Your task to perform on an android device: toggle show notifications on the lock screen Image 0: 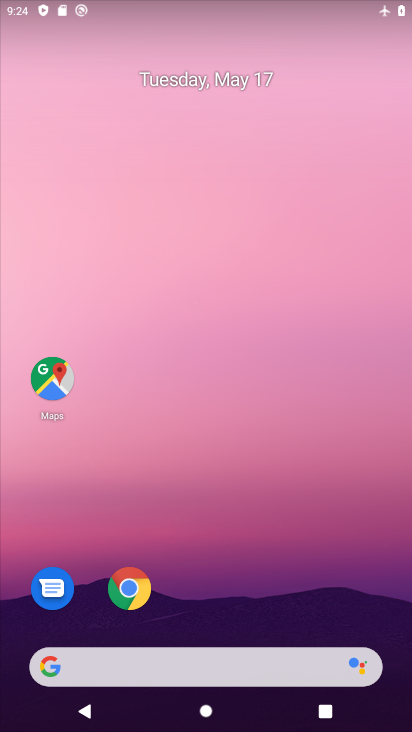
Step 0: drag from (232, 723) to (215, 59)
Your task to perform on an android device: toggle show notifications on the lock screen Image 1: 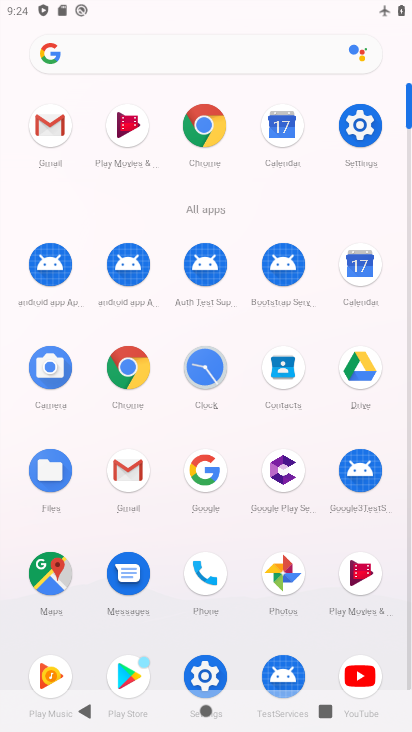
Step 1: click (362, 123)
Your task to perform on an android device: toggle show notifications on the lock screen Image 2: 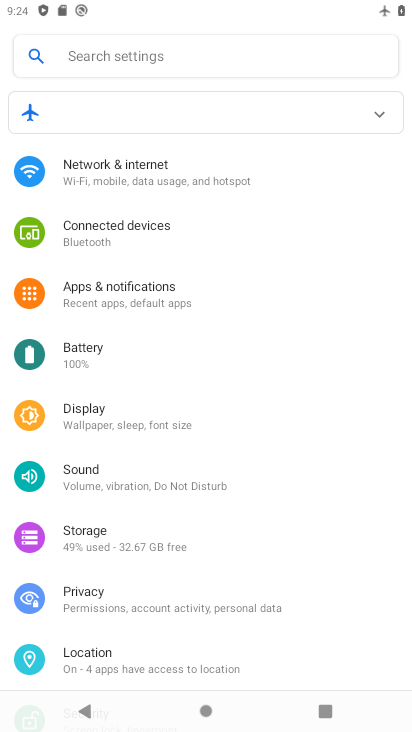
Step 2: click (122, 286)
Your task to perform on an android device: toggle show notifications on the lock screen Image 3: 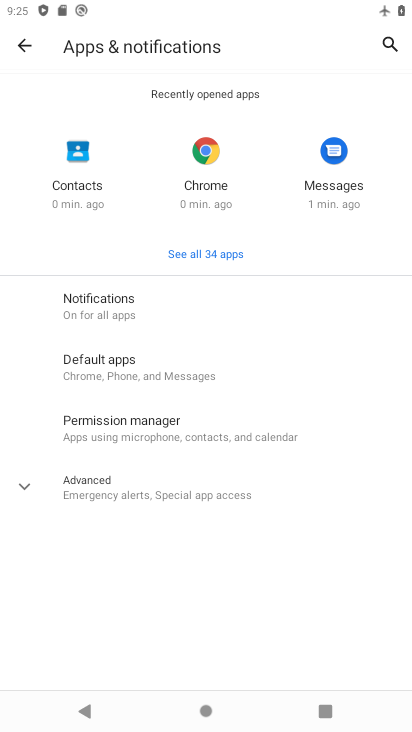
Step 3: click (105, 295)
Your task to perform on an android device: toggle show notifications on the lock screen Image 4: 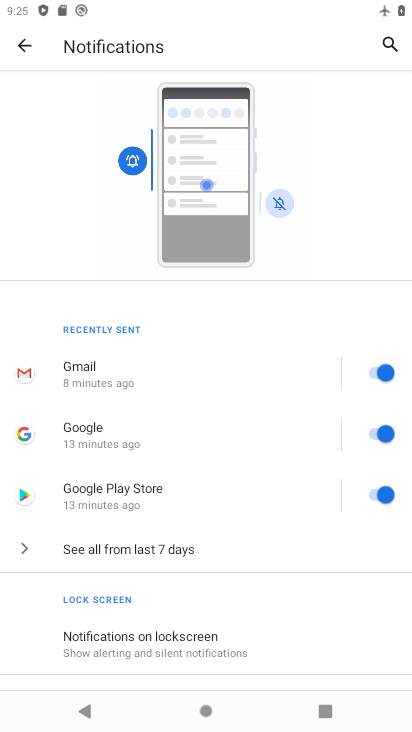
Step 4: drag from (262, 636) to (261, 389)
Your task to perform on an android device: toggle show notifications on the lock screen Image 5: 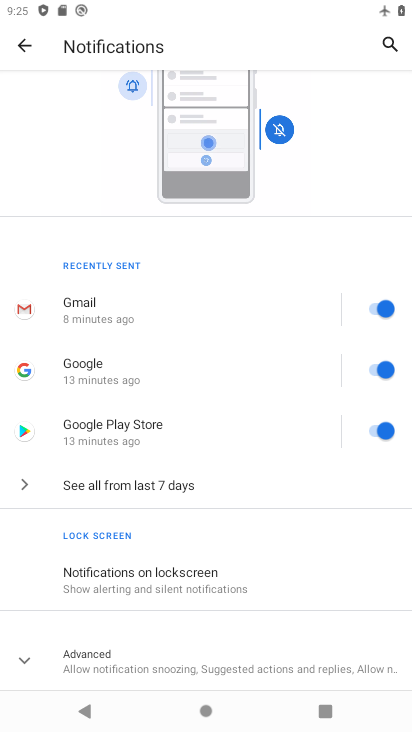
Step 5: click (110, 567)
Your task to perform on an android device: toggle show notifications on the lock screen Image 6: 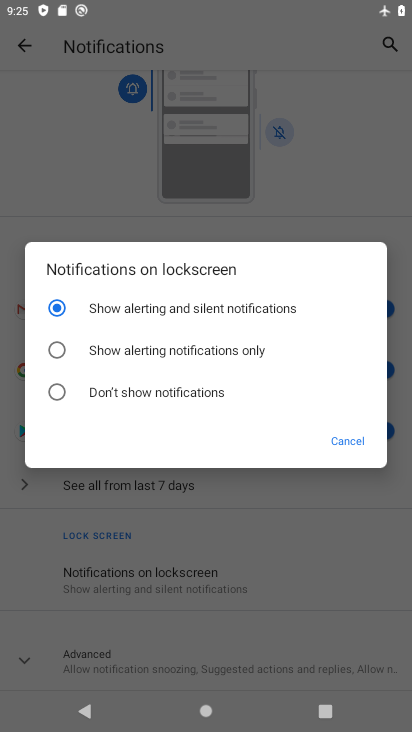
Step 6: click (55, 350)
Your task to perform on an android device: toggle show notifications on the lock screen Image 7: 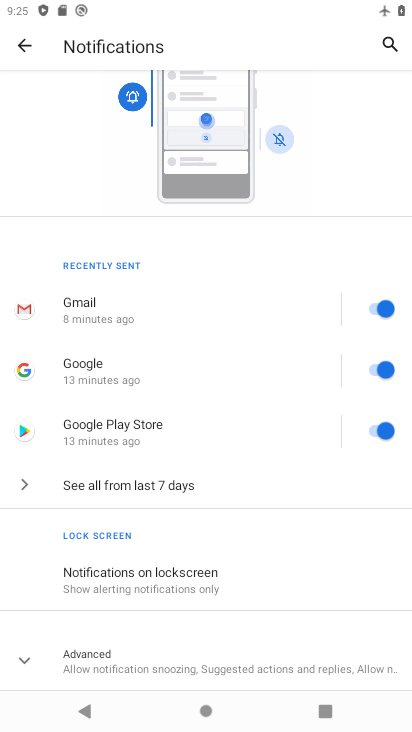
Step 7: task complete